Your task to perform on an android device: Open the web browser Image 0: 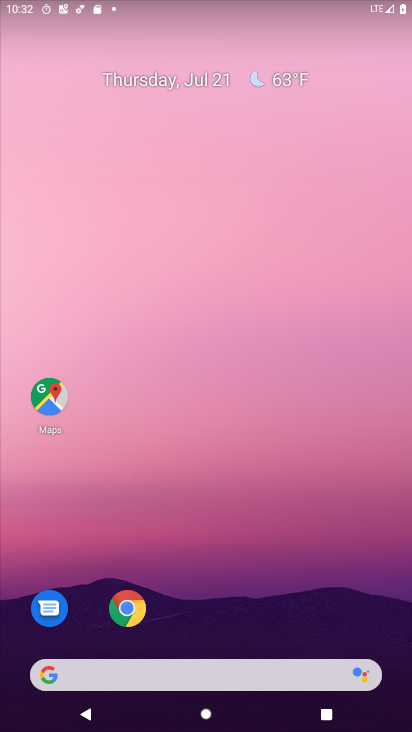
Step 0: drag from (224, 696) to (294, 145)
Your task to perform on an android device: Open the web browser Image 1: 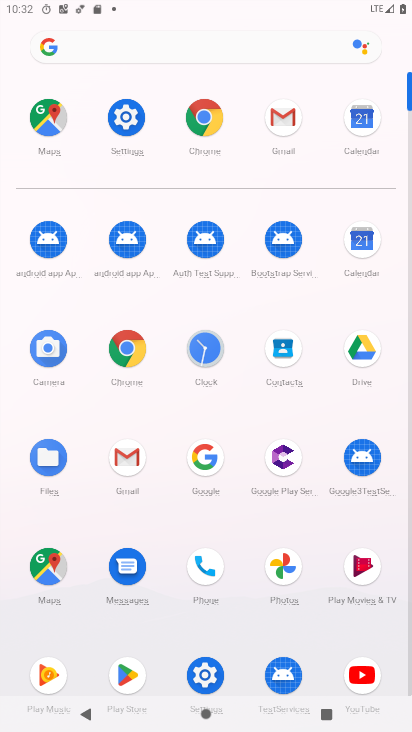
Step 1: click (197, 136)
Your task to perform on an android device: Open the web browser Image 2: 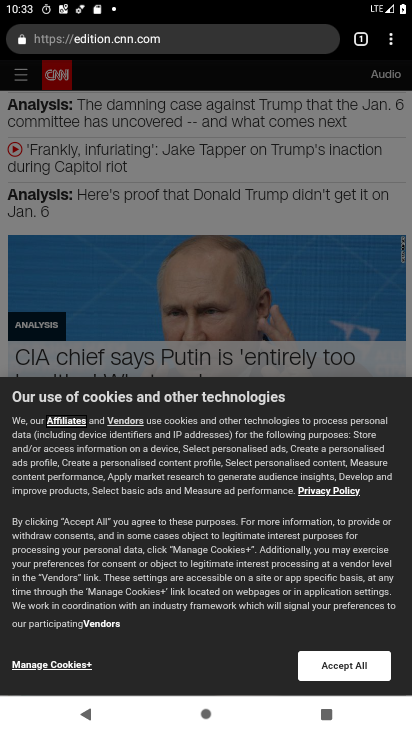
Step 2: task complete